Your task to perform on an android device: turn pop-ups on in chrome Image 0: 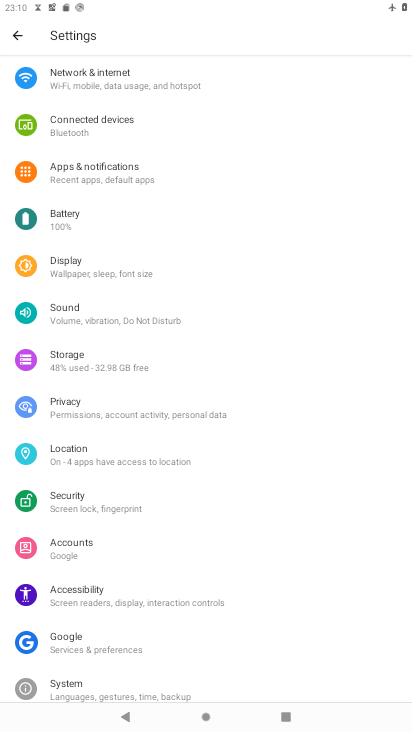
Step 0: press home button
Your task to perform on an android device: turn pop-ups on in chrome Image 1: 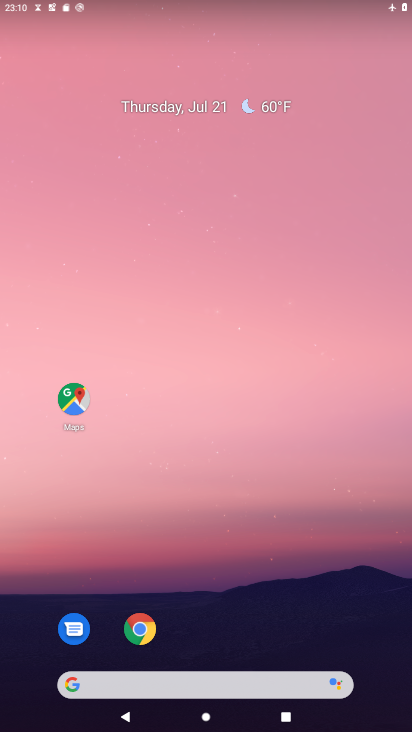
Step 1: drag from (257, 625) to (290, 242)
Your task to perform on an android device: turn pop-ups on in chrome Image 2: 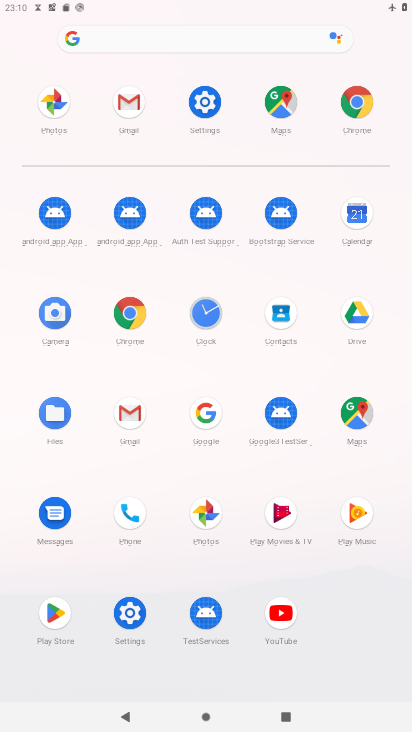
Step 2: click (359, 106)
Your task to perform on an android device: turn pop-ups on in chrome Image 3: 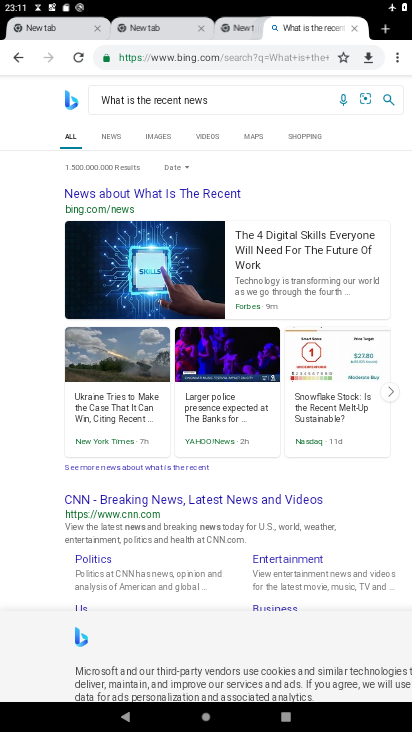
Step 3: click (397, 52)
Your task to perform on an android device: turn pop-ups on in chrome Image 4: 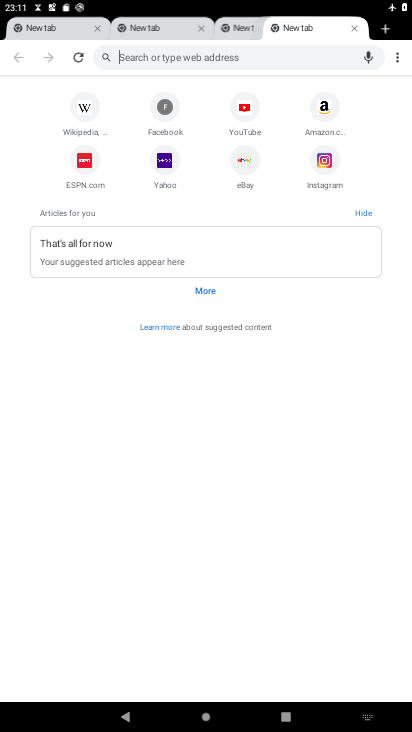
Step 4: click (397, 52)
Your task to perform on an android device: turn pop-ups on in chrome Image 5: 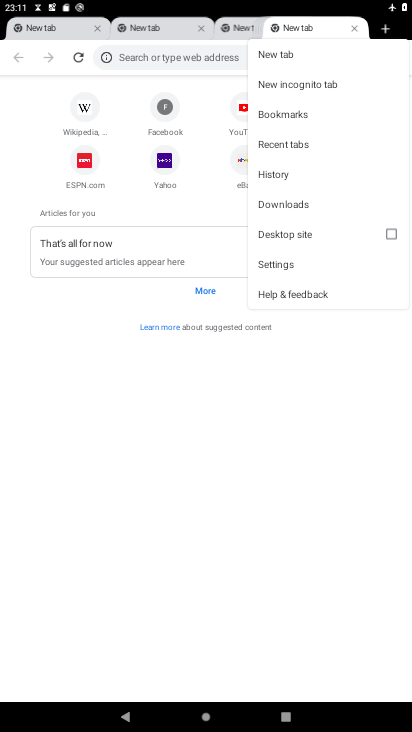
Step 5: click (289, 266)
Your task to perform on an android device: turn pop-ups on in chrome Image 6: 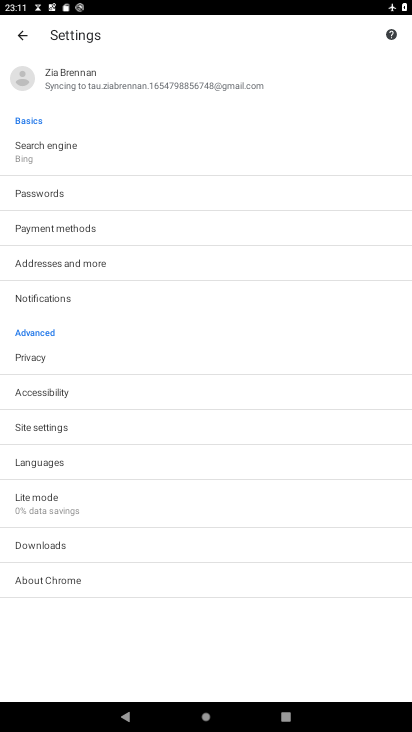
Step 6: click (57, 432)
Your task to perform on an android device: turn pop-ups on in chrome Image 7: 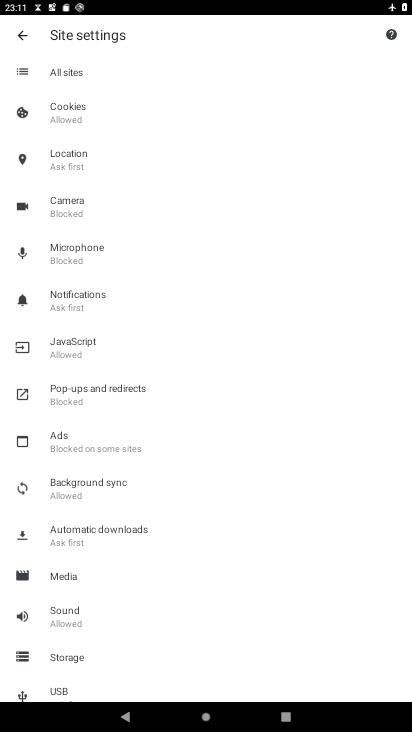
Step 7: click (104, 381)
Your task to perform on an android device: turn pop-ups on in chrome Image 8: 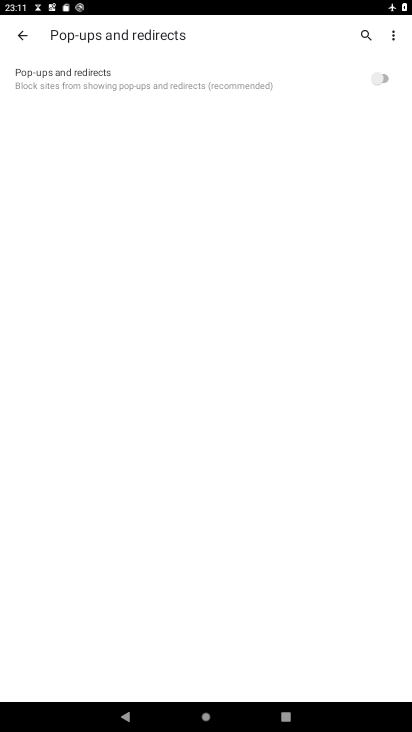
Step 8: click (380, 71)
Your task to perform on an android device: turn pop-ups on in chrome Image 9: 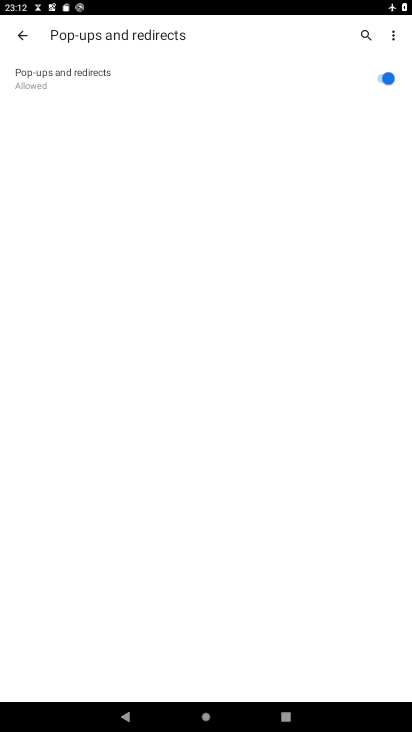
Step 9: task complete